Your task to perform on an android device: Do I have any events this weekend? Image 0: 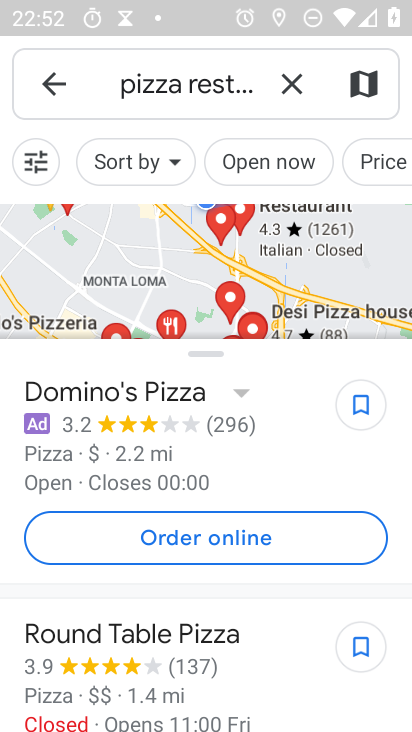
Step 0: press home button
Your task to perform on an android device: Do I have any events this weekend? Image 1: 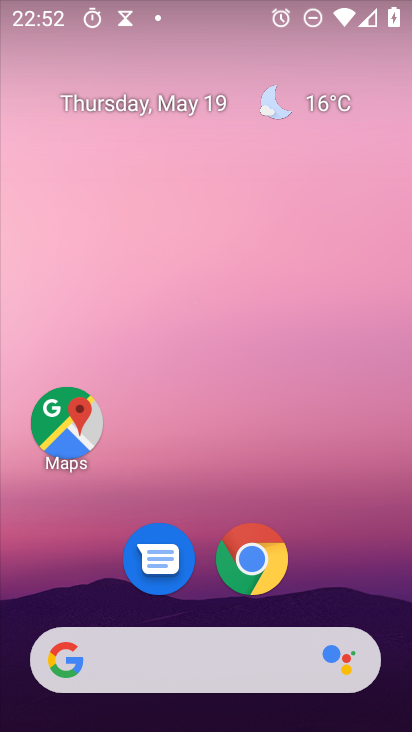
Step 1: drag from (227, 730) to (256, 6)
Your task to perform on an android device: Do I have any events this weekend? Image 2: 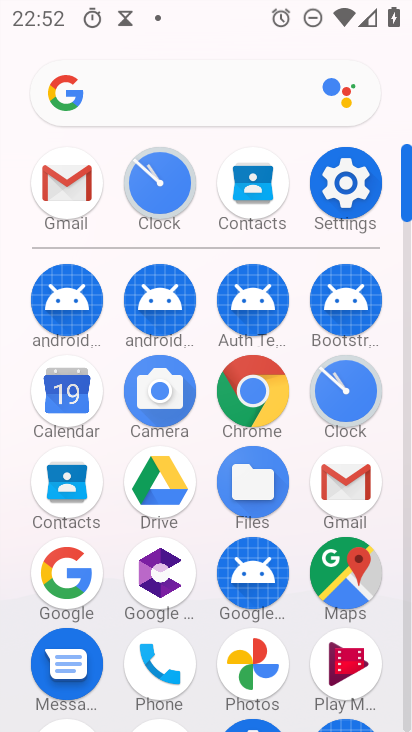
Step 2: click (55, 396)
Your task to perform on an android device: Do I have any events this weekend? Image 3: 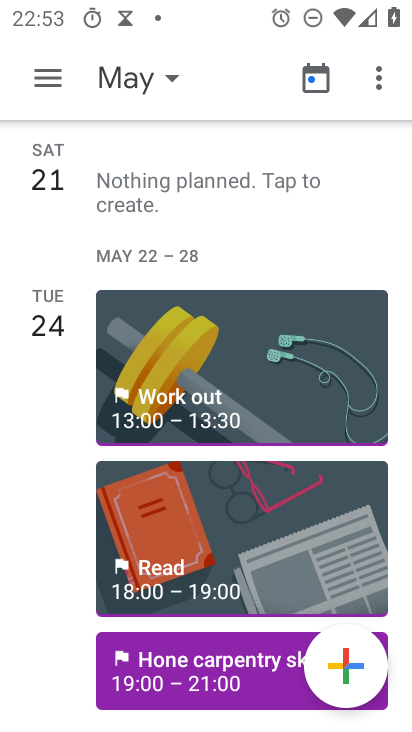
Step 3: task complete